Your task to perform on an android device: Go to calendar. Show me events next week Image 0: 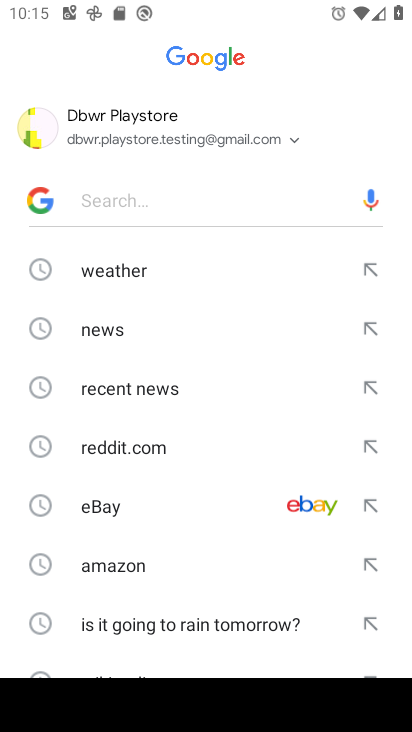
Step 0: press home button
Your task to perform on an android device: Go to calendar. Show me events next week Image 1: 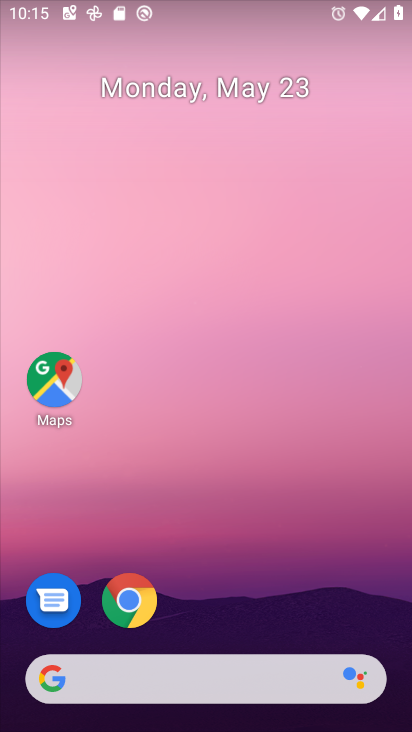
Step 1: drag from (208, 714) to (207, 136)
Your task to perform on an android device: Go to calendar. Show me events next week Image 2: 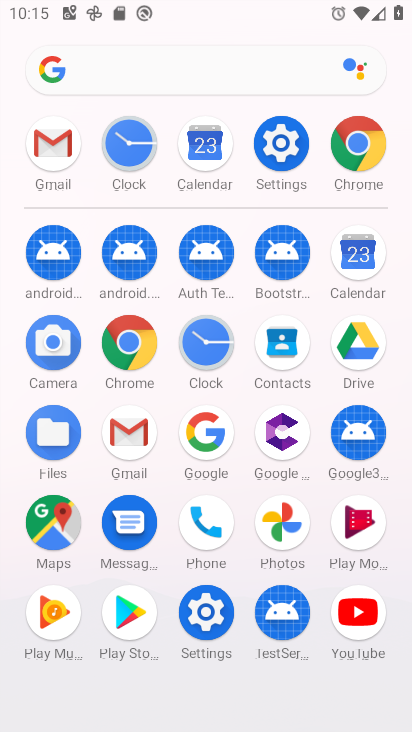
Step 2: click (356, 263)
Your task to perform on an android device: Go to calendar. Show me events next week Image 3: 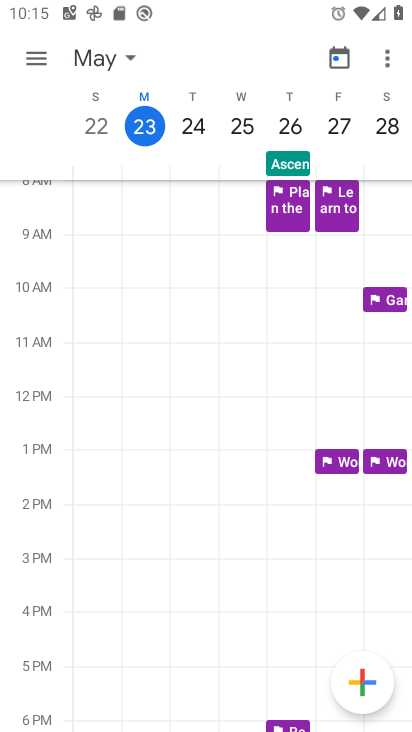
Step 3: click (390, 115)
Your task to perform on an android device: Go to calendar. Show me events next week Image 4: 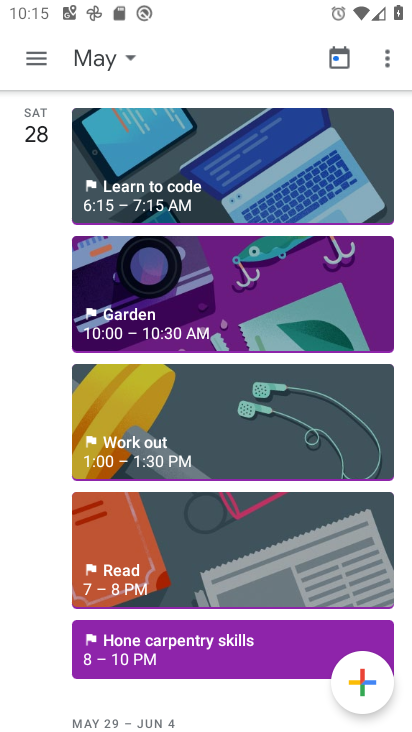
Step 4: click (125, 55)
Your task to perform on an android device: Go to calendar. Show me events next week Image 5: 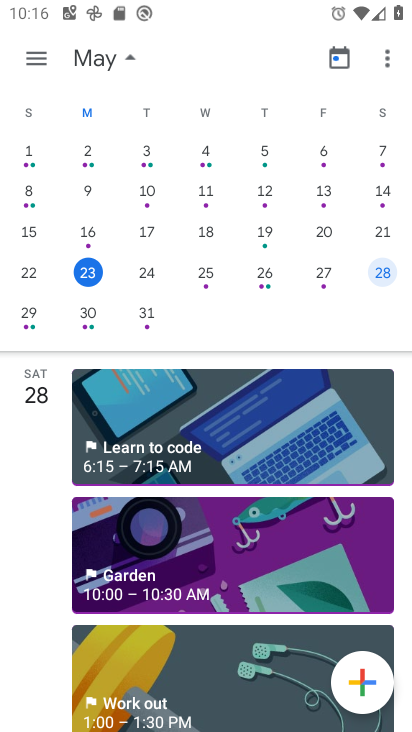
Step 5: click (35, 60)
Your task to perform on an android device: Go to calendar. Show me events next week Image 6: 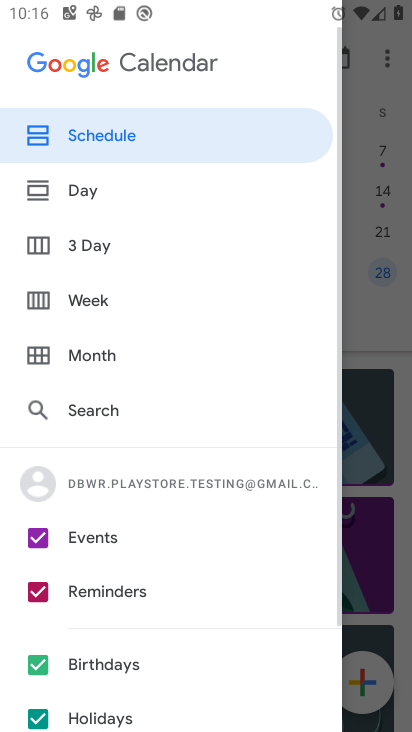
Step 6: click (85, 302)
Your task to perform on an android device: Go to calendar. Show me events next week Image 7: 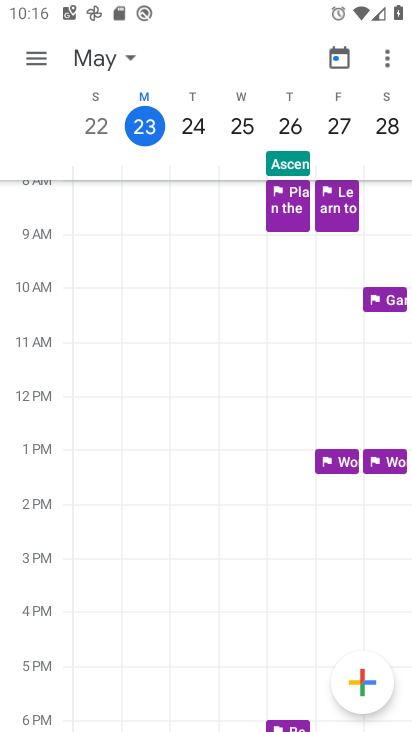
Step 7: task complete